Your task to perform on an android device: Search for Mexican restaurants on Maps Image 0: 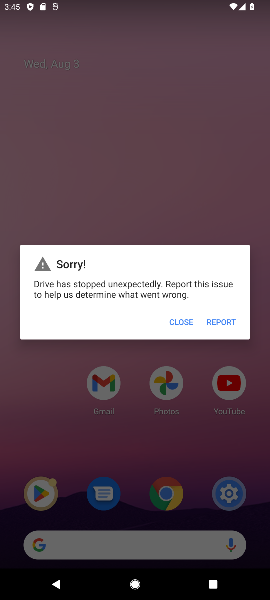
Step 0: press home button
Your task to perform on an android device: Search for Mexican restaurants on Maps Image 1: 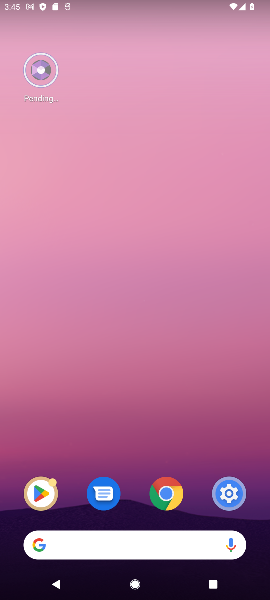
Step 1: drag from (202, 445) to (207, 40)
Your task to perform on an android device: Search for Mexican restaurants on Maps Image 2: 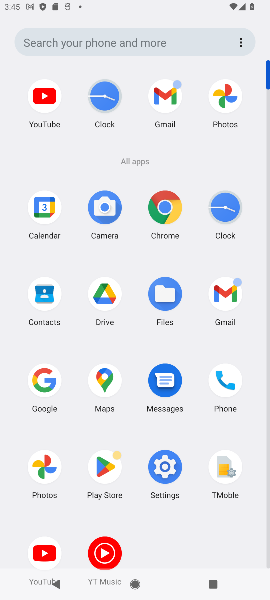
Step 2: click (100, 380)
Your task to perform on an android device: Search for Mexican restaurants on Maps Image 3: 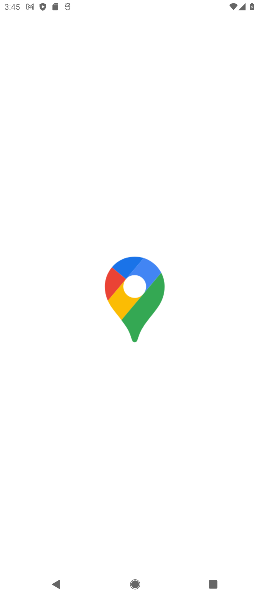
Step 3: task complete